Your task to perform on an android device: turn pop-ups off in chrome Image 0: 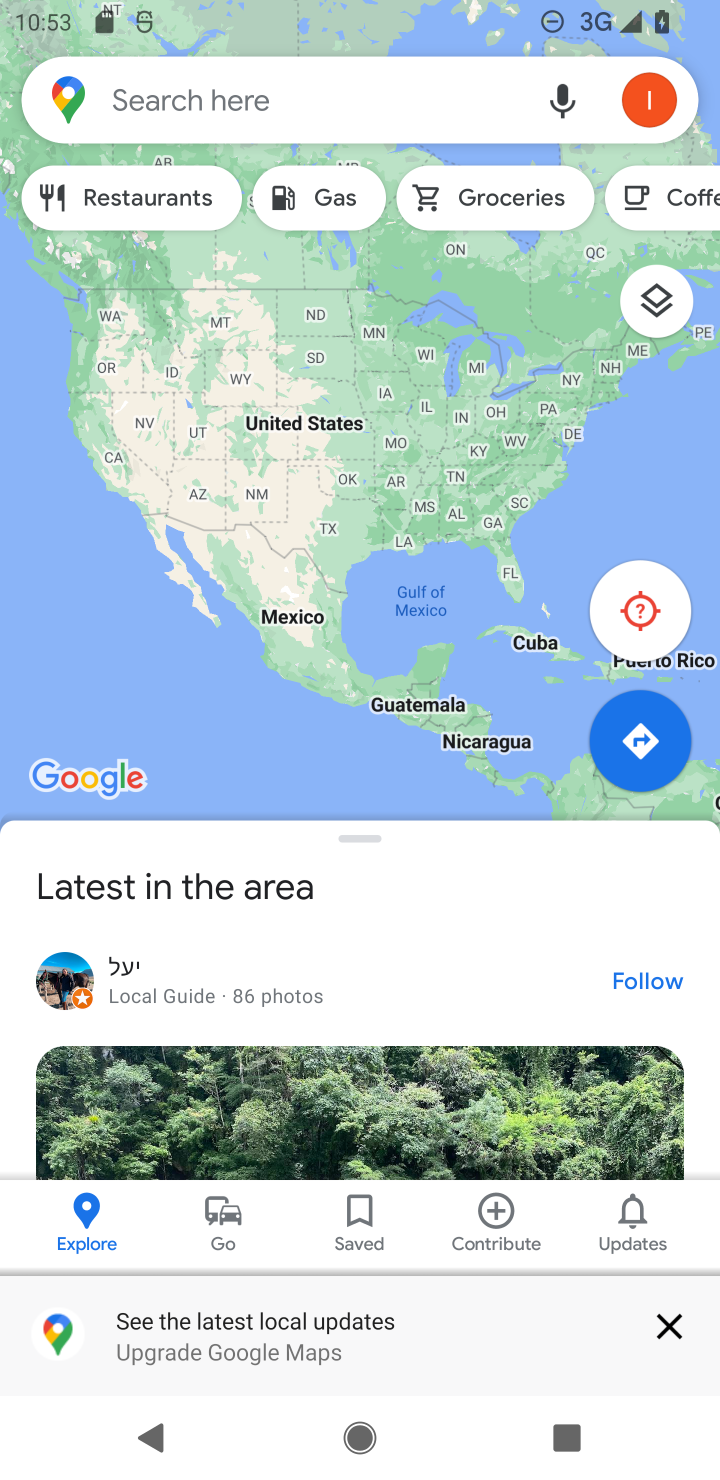
Step 0: press home button
Your task to perform on an android device: turn pop-ups off in chrome Image 1: 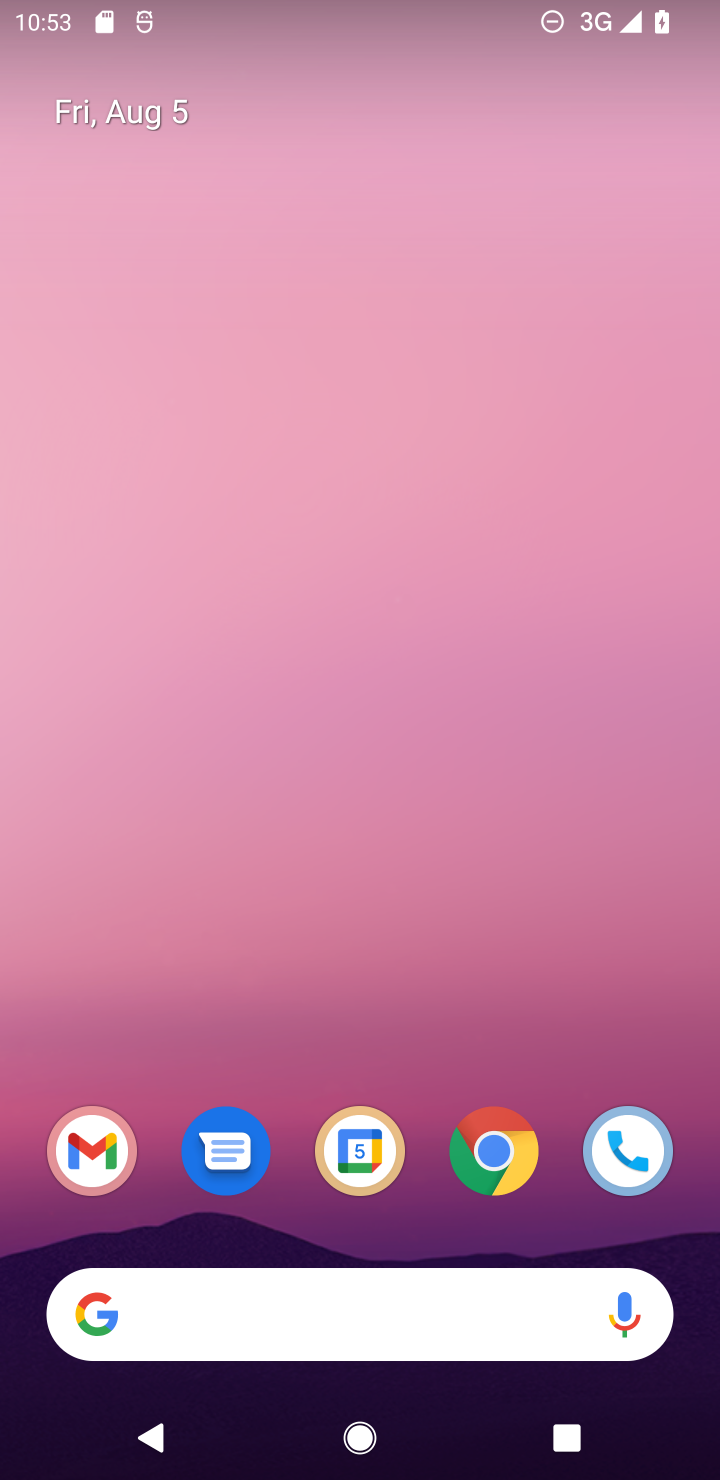
Step 1: click (482, 1178)
Your task to perform on an android device: turn pop-ups off in chrome Image 2: 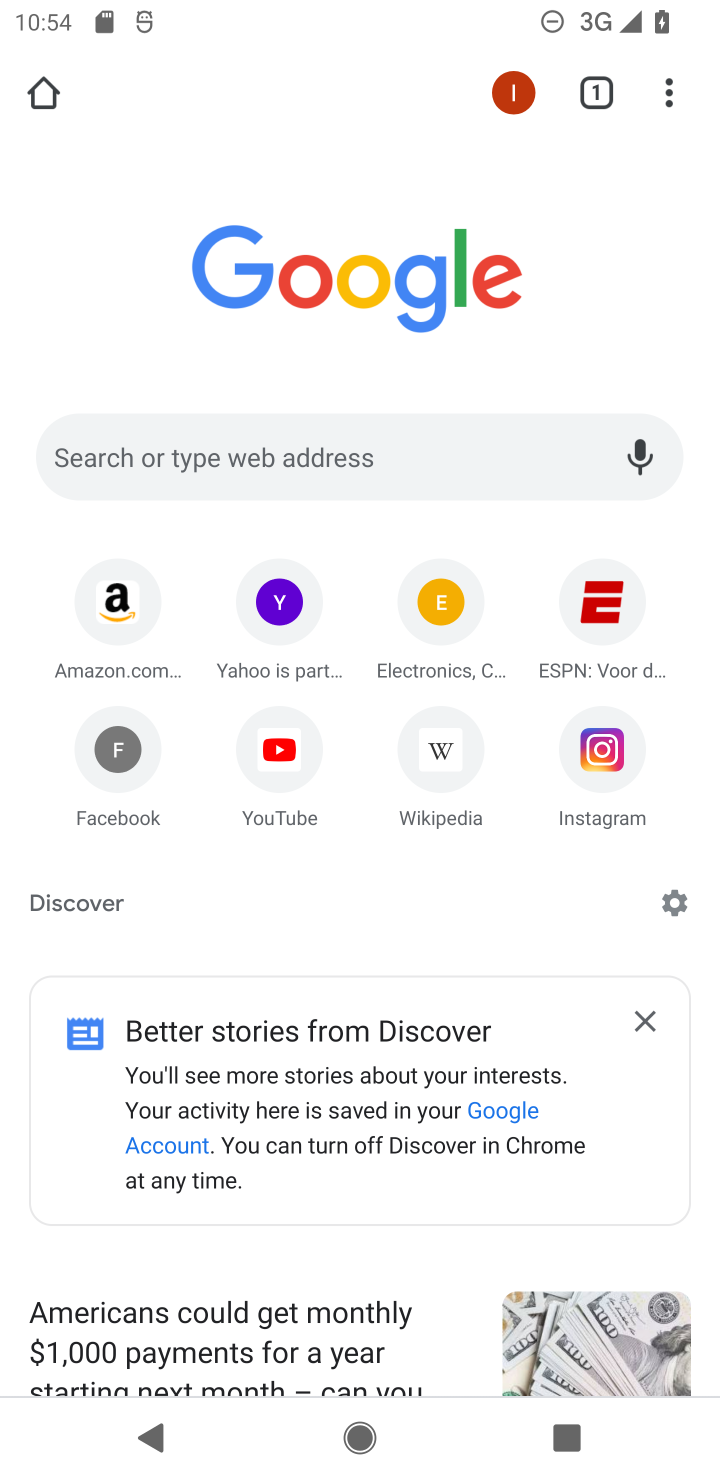
Step 2: click (670, 84)
Your task to perform on an android device: turn pop-ups off in chrome Image 3: 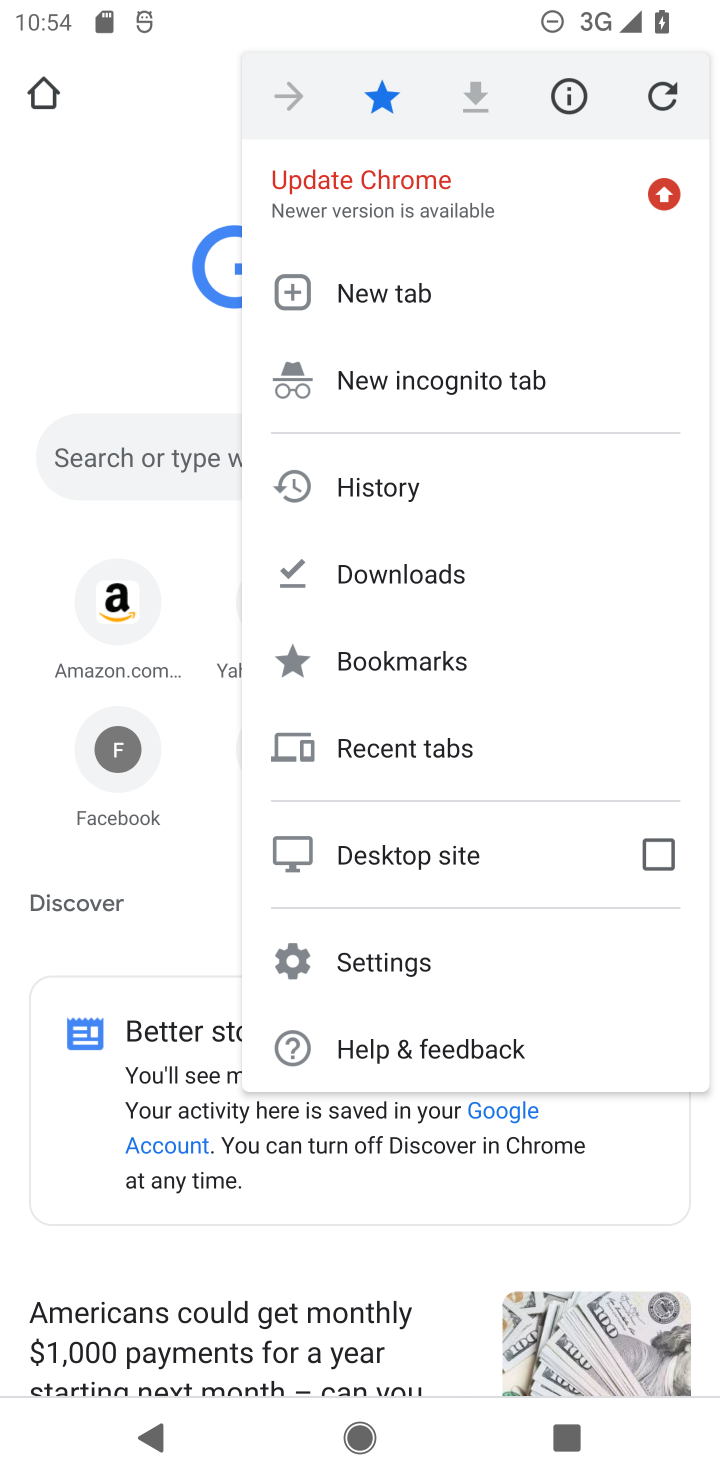
Step 3: click (411, 971)
Your task to perform on an android device: turn pop-ups off in chrome Image 4: 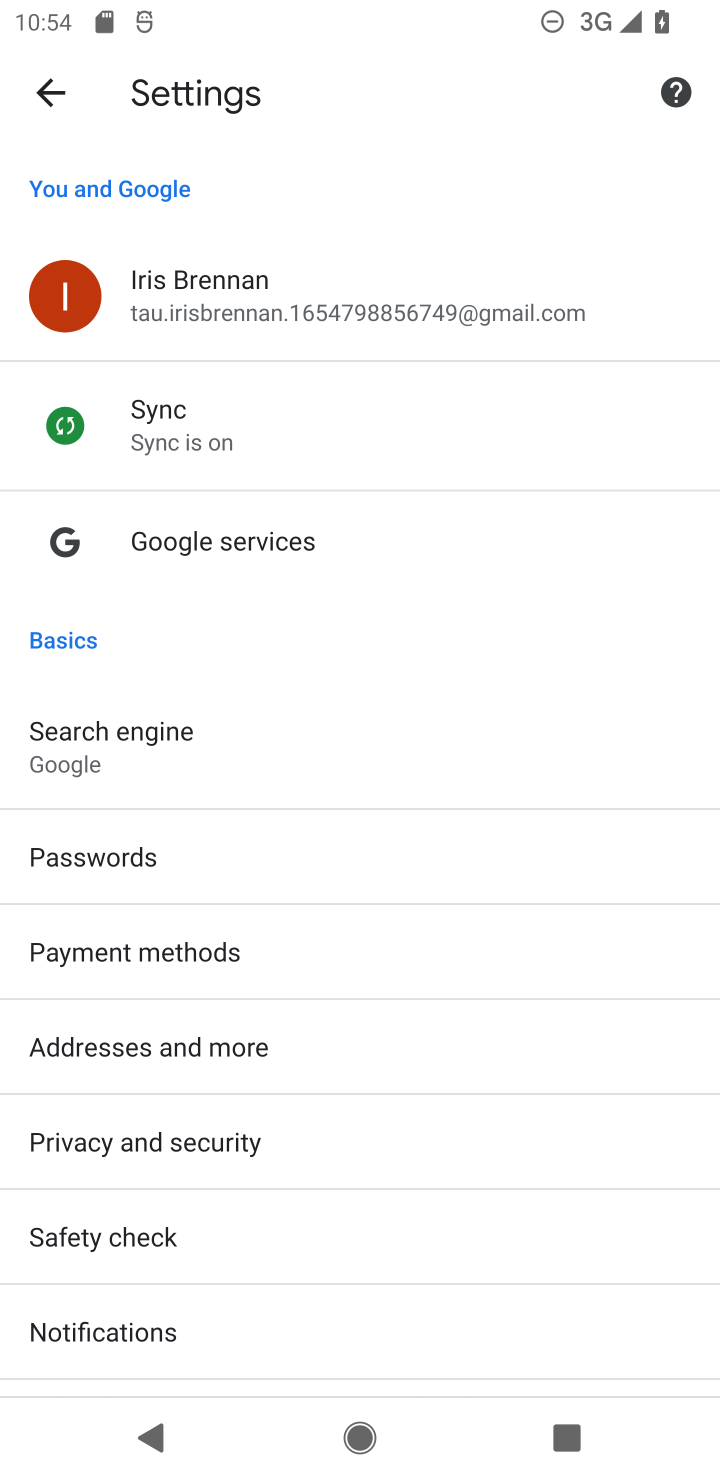
Step 4: drag from (206, 839) to (206, 738)
Your task to perform on an android device: turn pop-ups off in chrome Image 5: 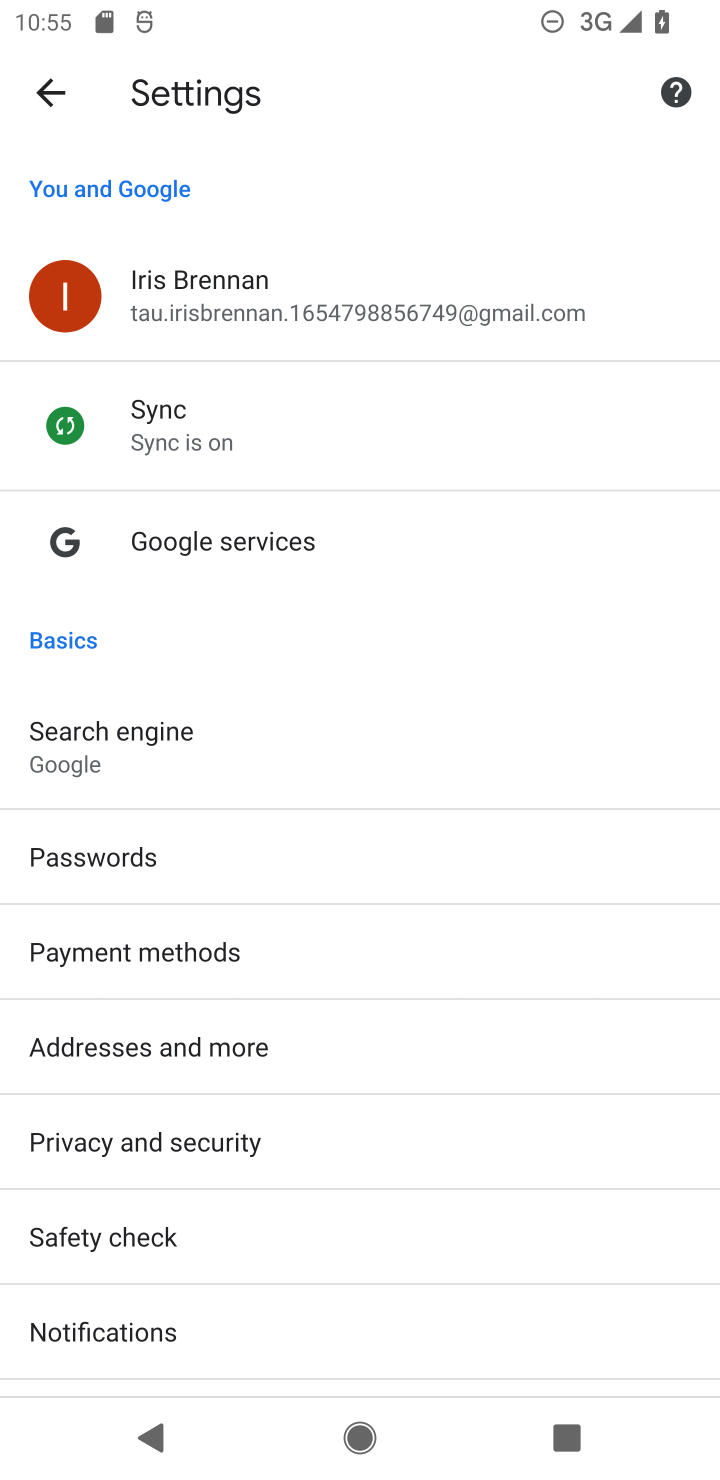
Step 5: drag from (164, 1176) to (277, 583)
Your task to perform on an android device: turn pop-ups off in chrome Image 6: 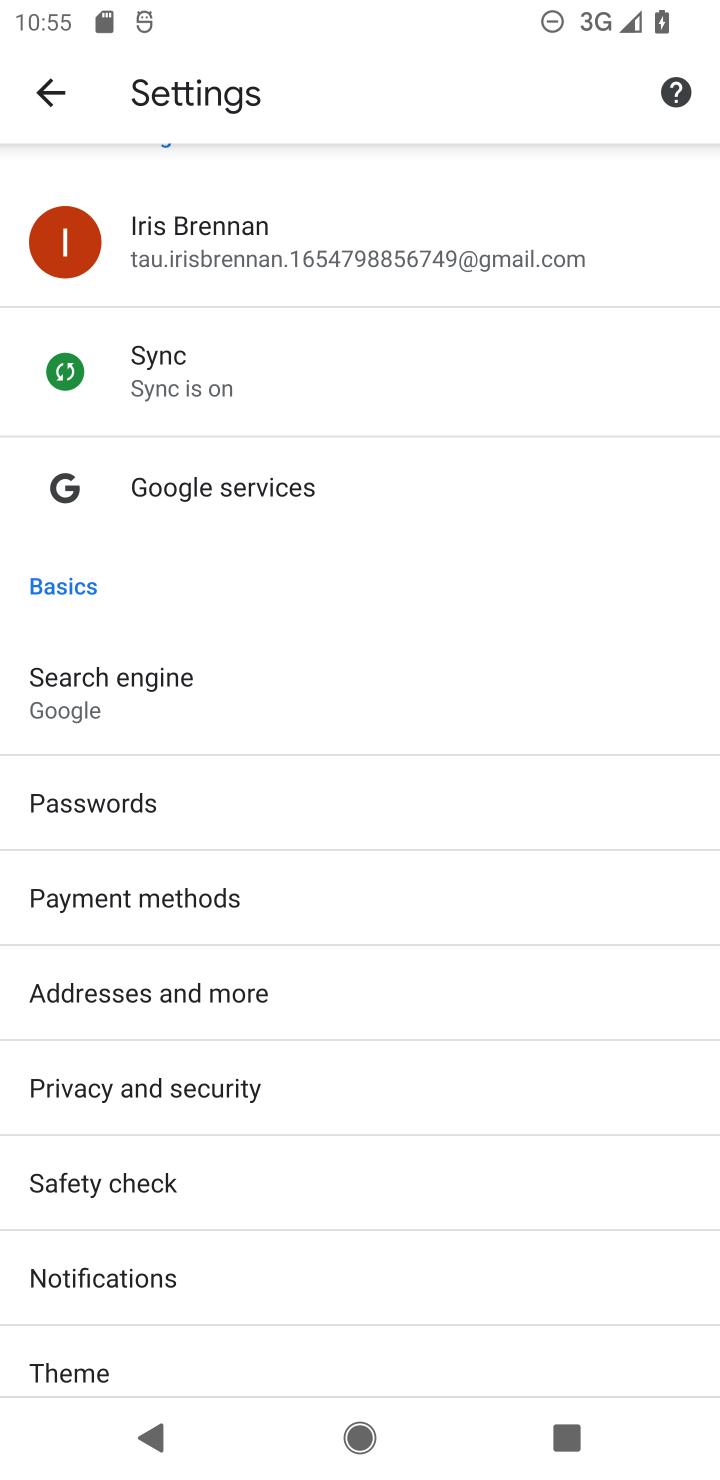
Step 6: drag from (213, 997) to (342, 595)
Your task to perform on an android device: turn pop-ups off in chrome Image 7: 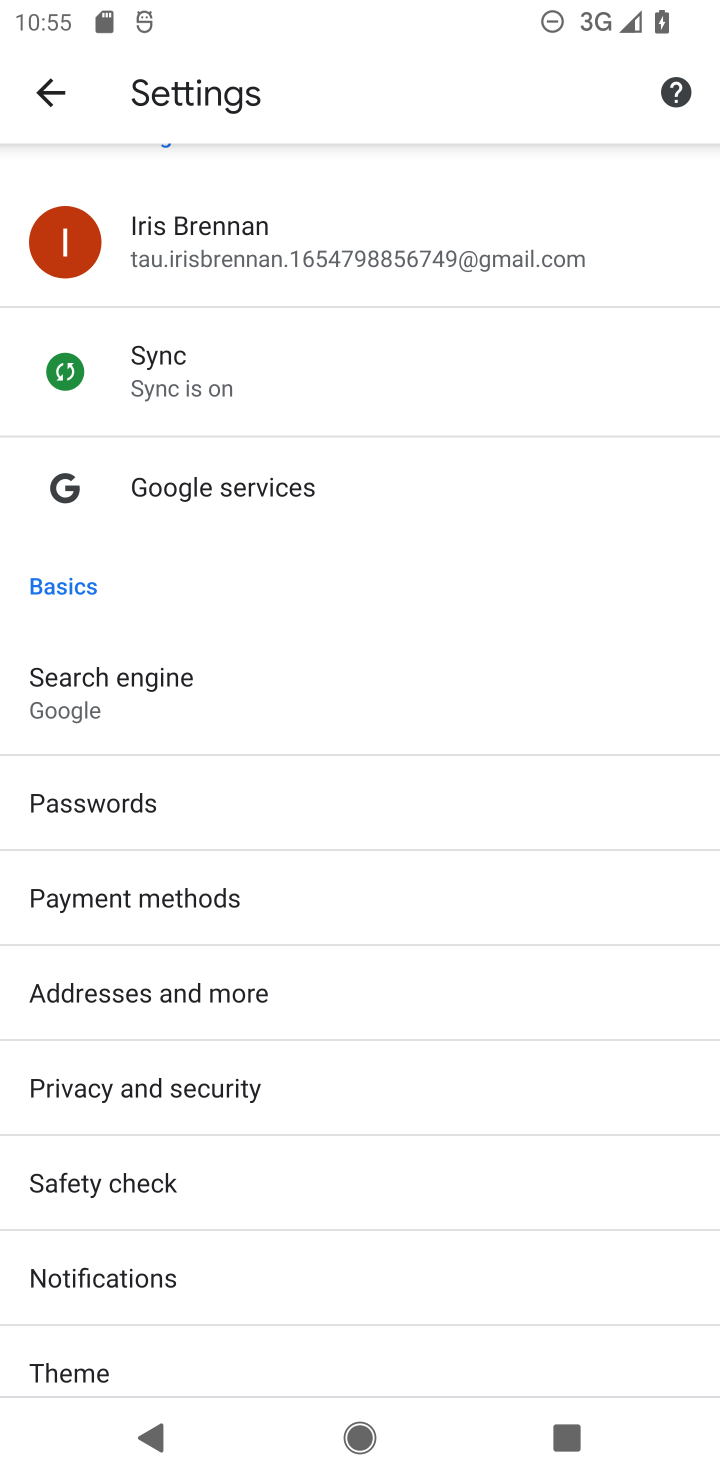
Step 7: drag from (297, 663) to (447, 329)
Your task to perform on an android device: turn pop-ups off in chrome Image 8: 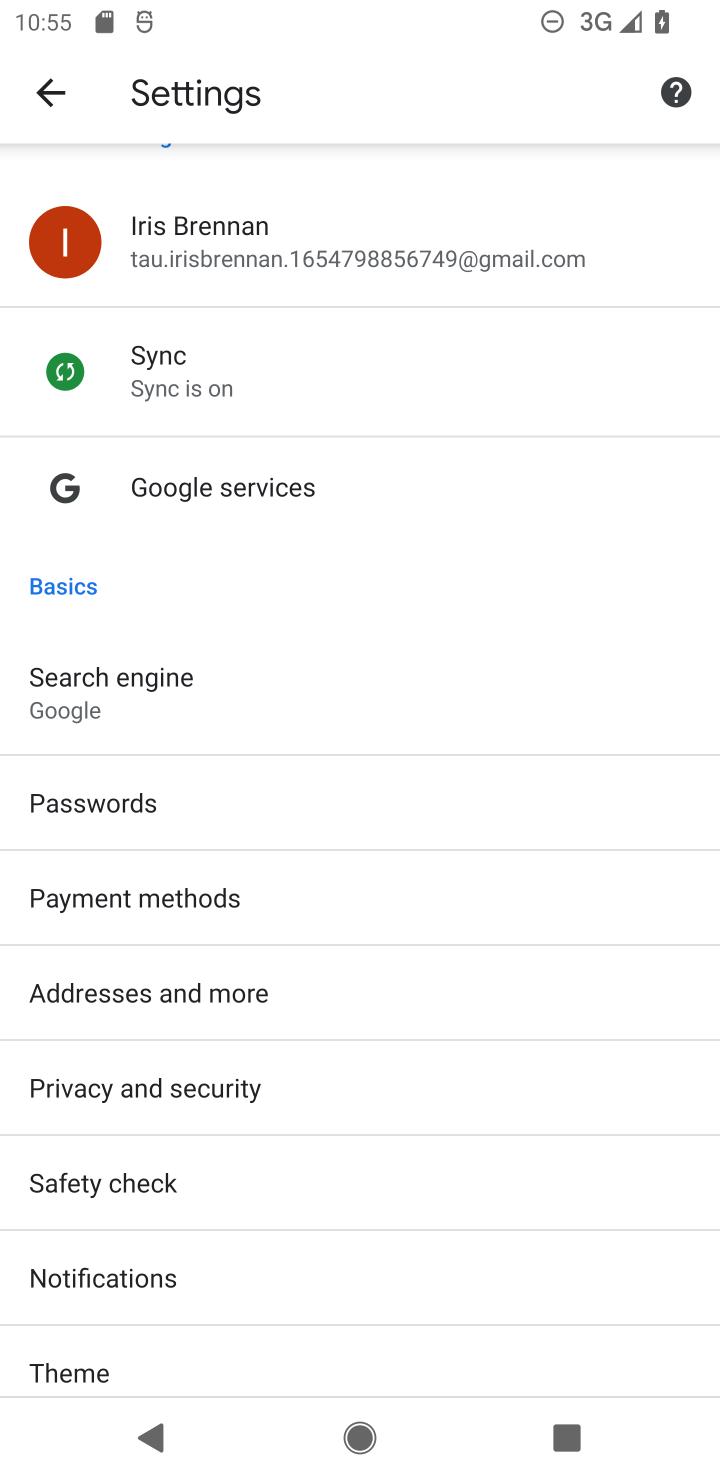
Step 8: drag from (201, 687) to (352, 214)
Your task to perform on an android device: turn pop-ups off in chrome Image 9: 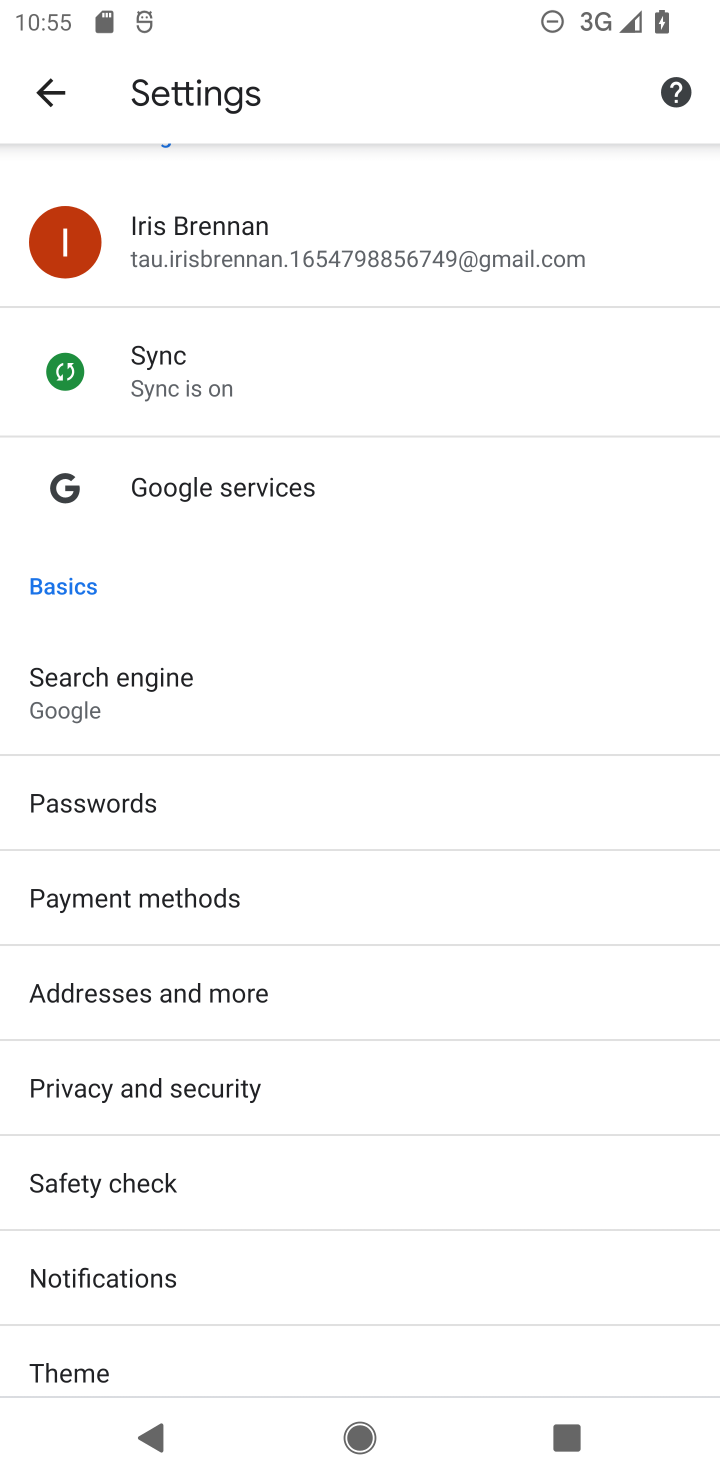
Step 9: drag from (207, 1058) to (397, 511)
Your task to perform on an android device: turn pop-ups off in chrome Image 10: 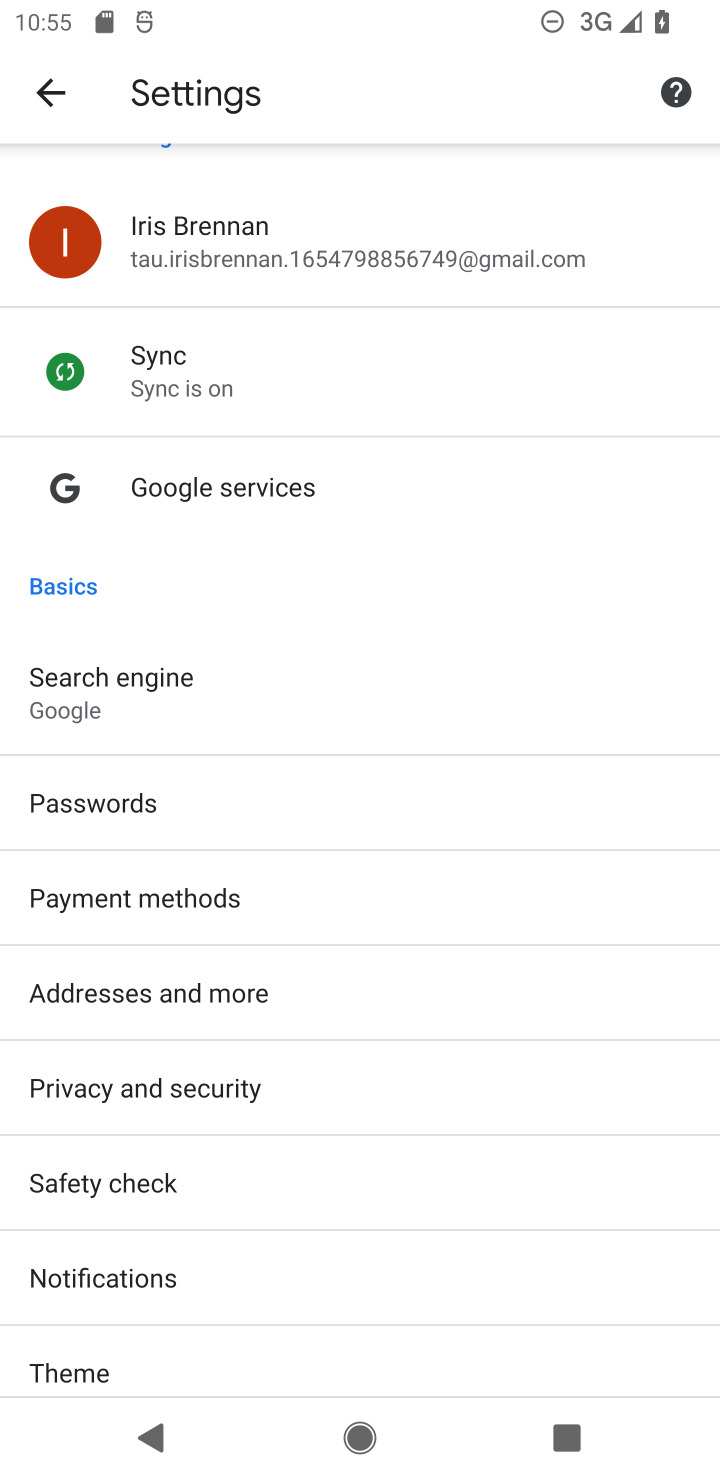
Step 10: drag from (286, 1138) to (387, 879)
Your task to perform on an android device: turn pop-ups off in chrome Image 11: 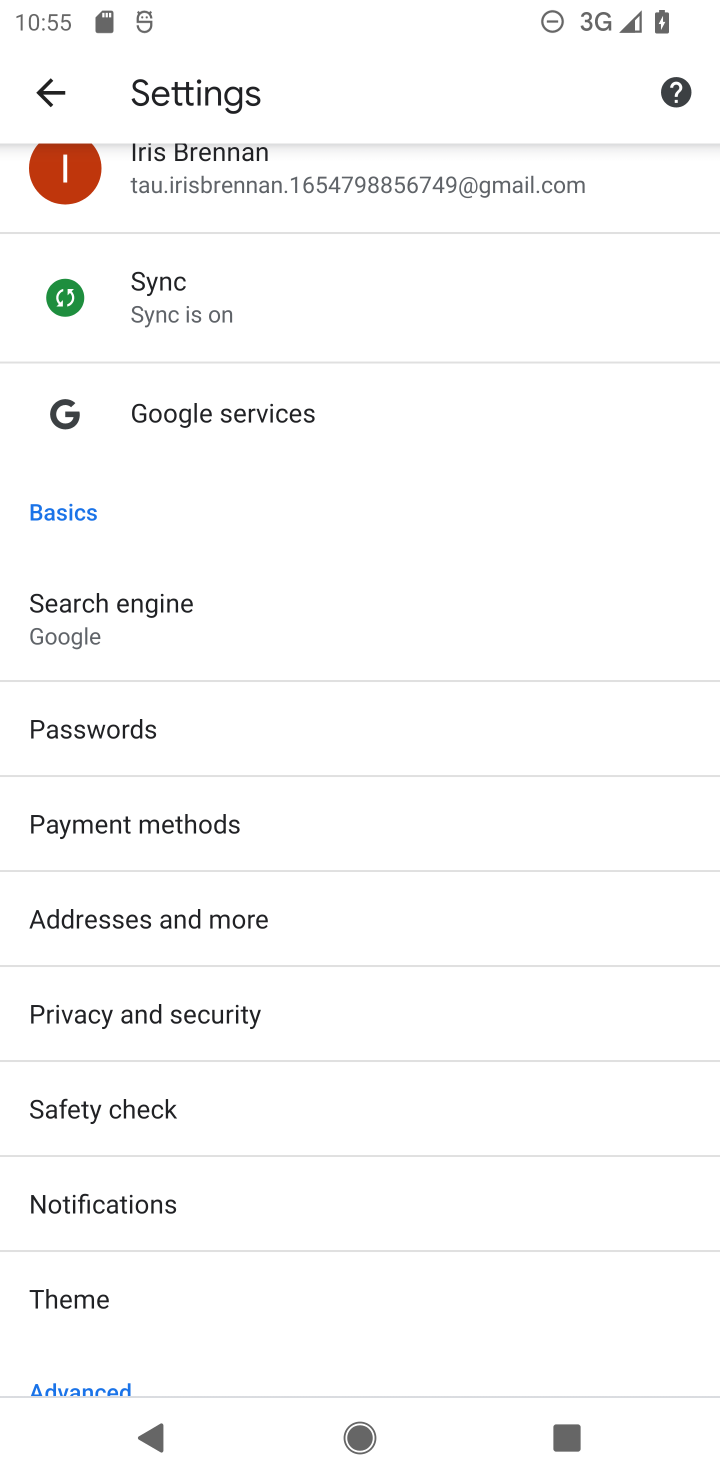
Step 11: drag from (179, 1010) to (266, 832)
Your task to perform on an android device: turn pop-ups off in chrome Image 12: 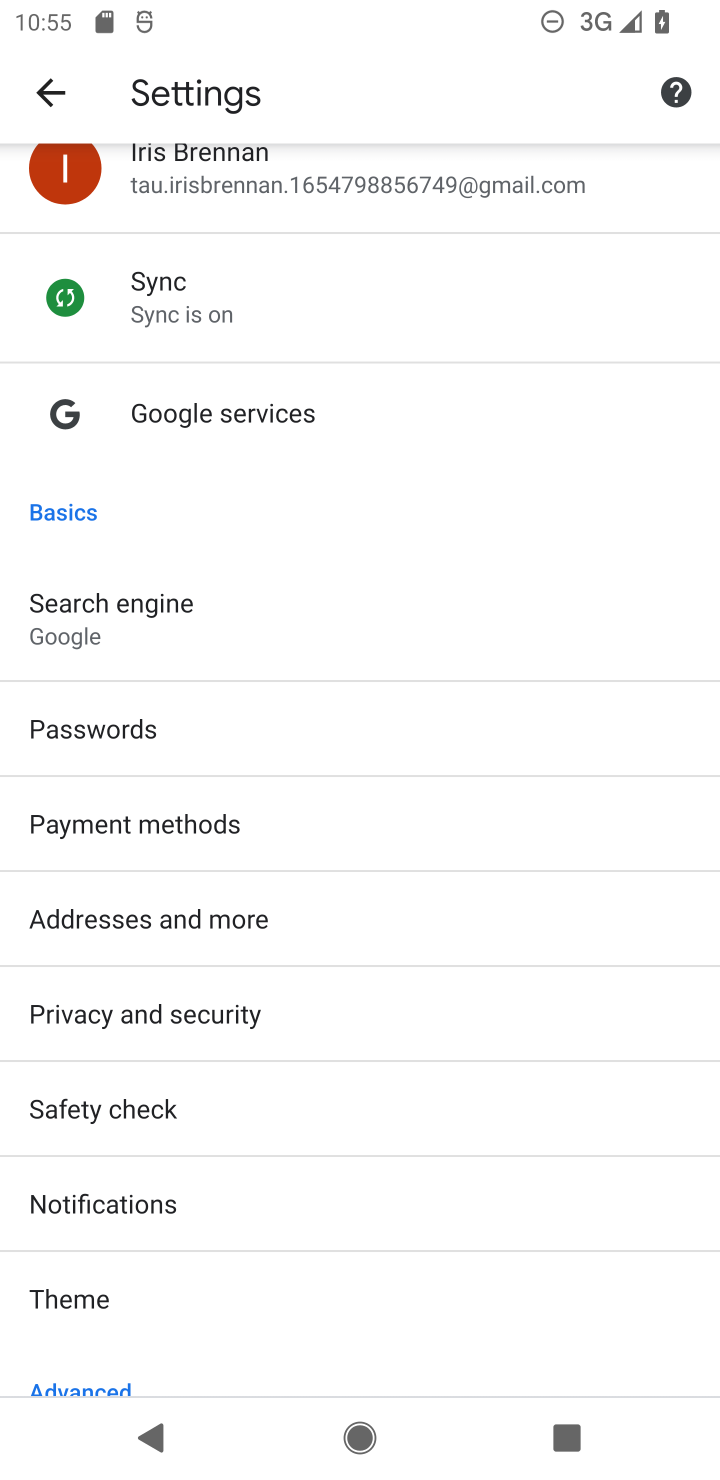
Step 12: drag from (221, 792) to (261, 627)
Your task to perform on an android device: turn pop-ups off in chrome Image 13: 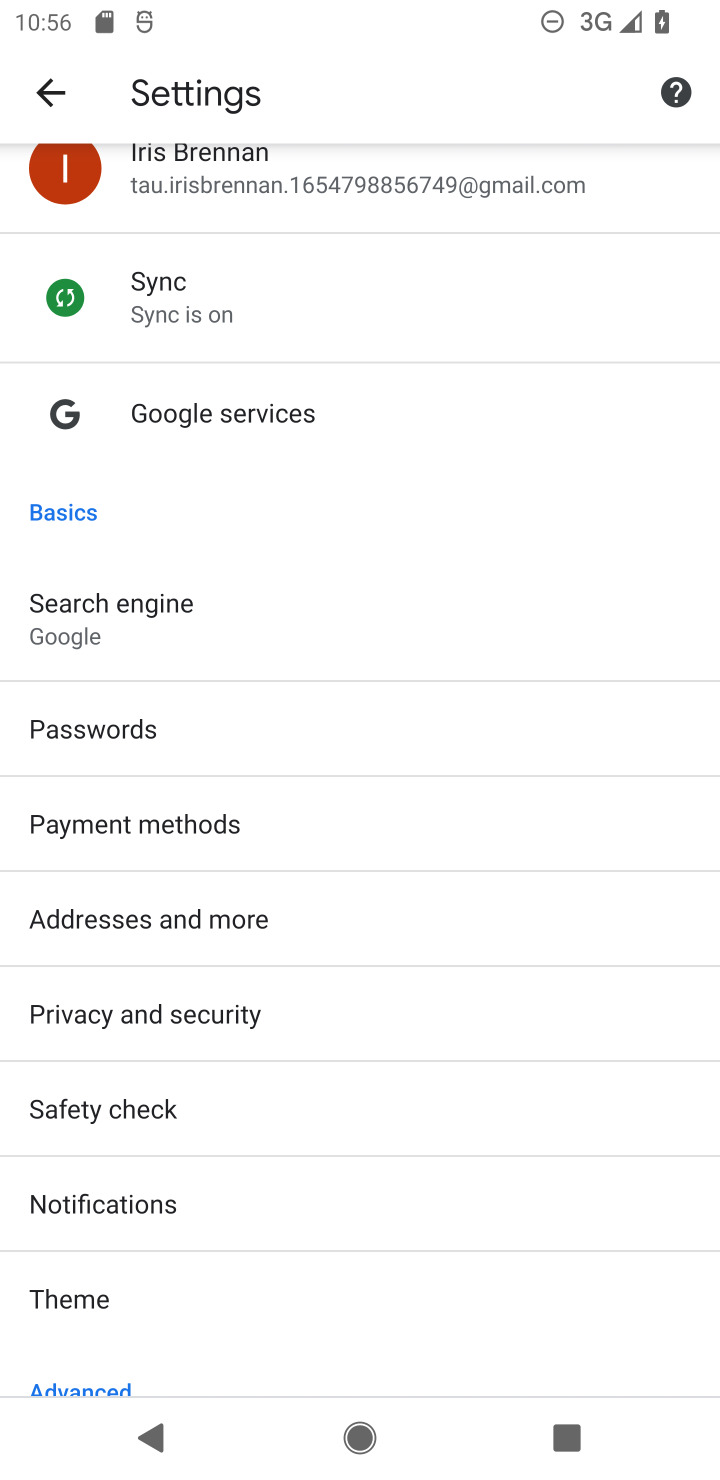
Step 13: drag from (292, 1008) to (337, 705)
Your task to perform on an android device: turn pop-ups off in chrome Image 14: 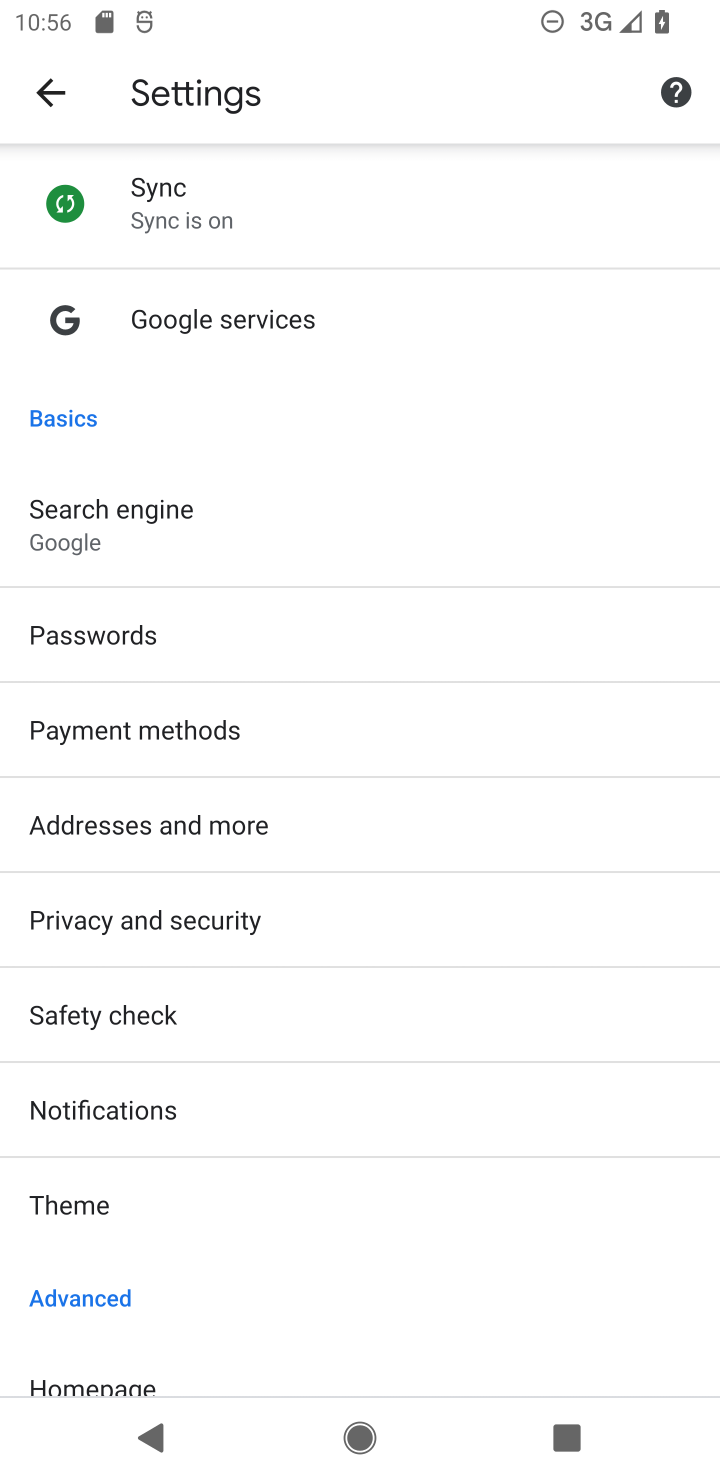
Step 14: drag from (273, 892) to (398, 433)
Your task to perform on an android device: turn pop-ups off in chrome Image 15: 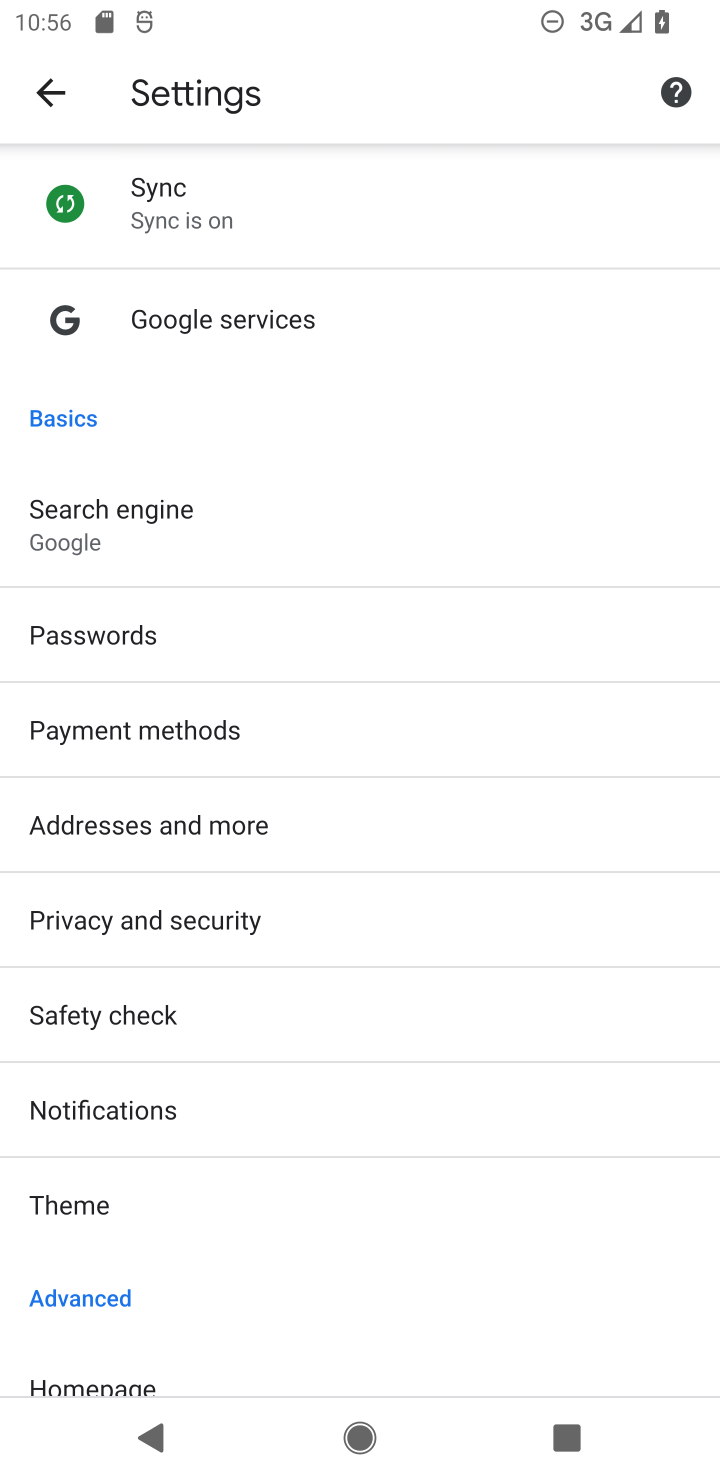
Step 15: drag from (304, 906) to (357, 630)
Your task to perform on an android device: turn pop-ups off in chrome Image 16: 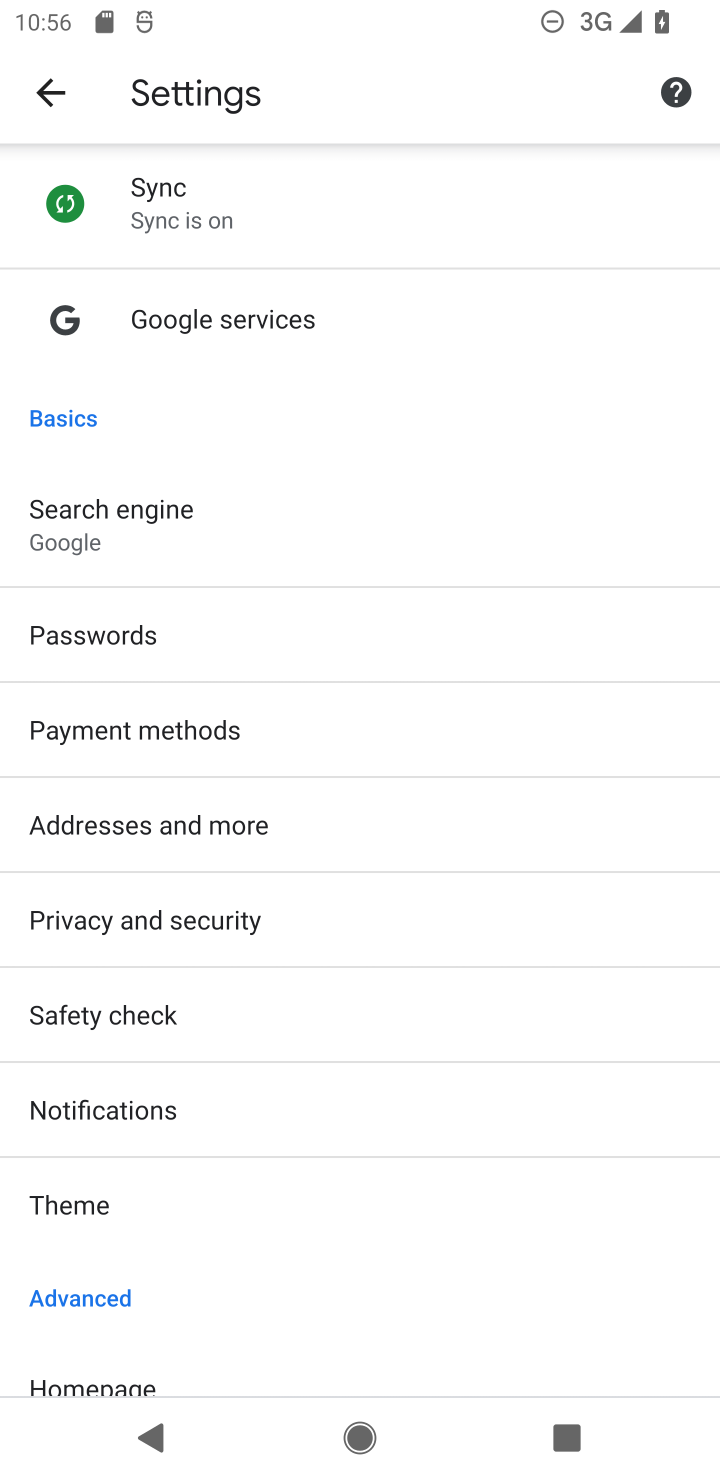
Step 16: drag from (248, 1044) to (396, 218)
Your task to perform on an android device: turn pop-ups off in chrome Image 17: 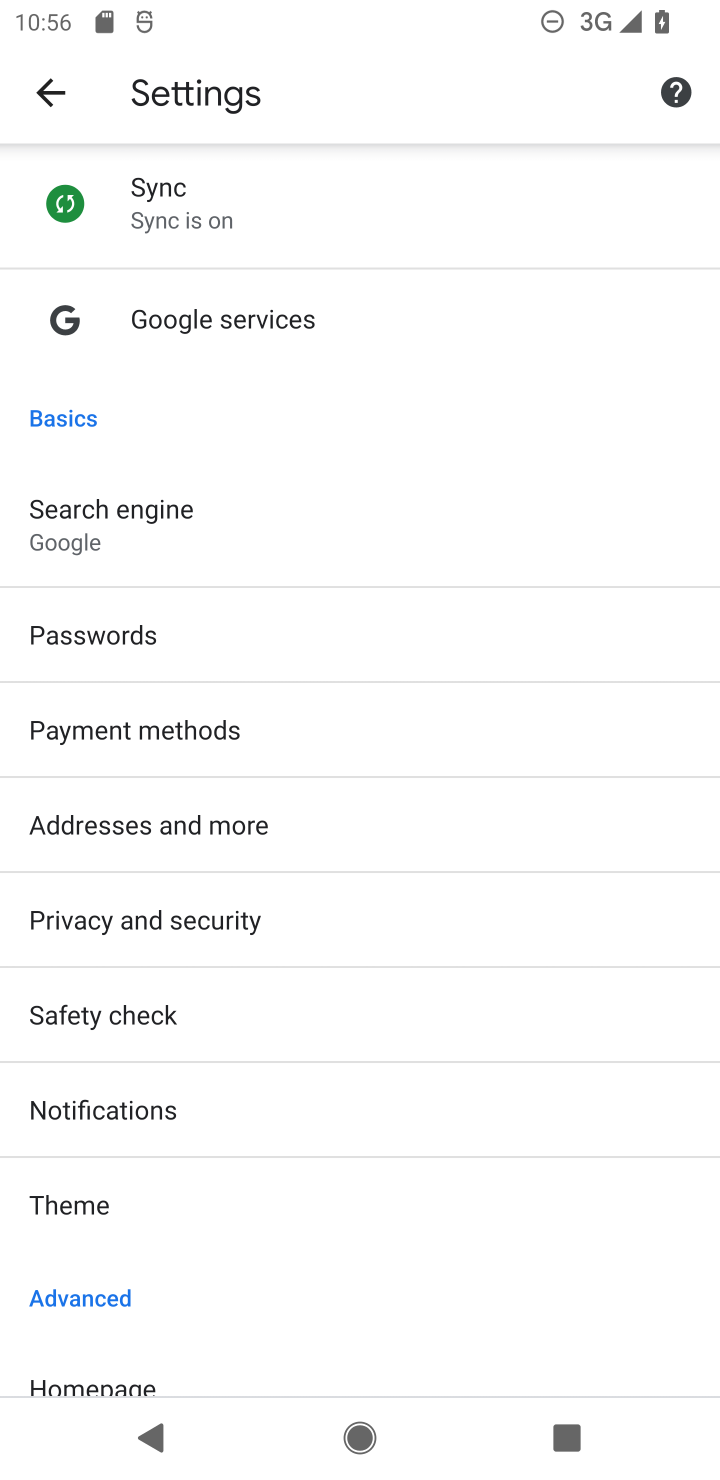
Step 17: drag from (188, 1269) to (250, 336)
Your task to perform on an android device: turn pop-ups off in chrome Image 18: 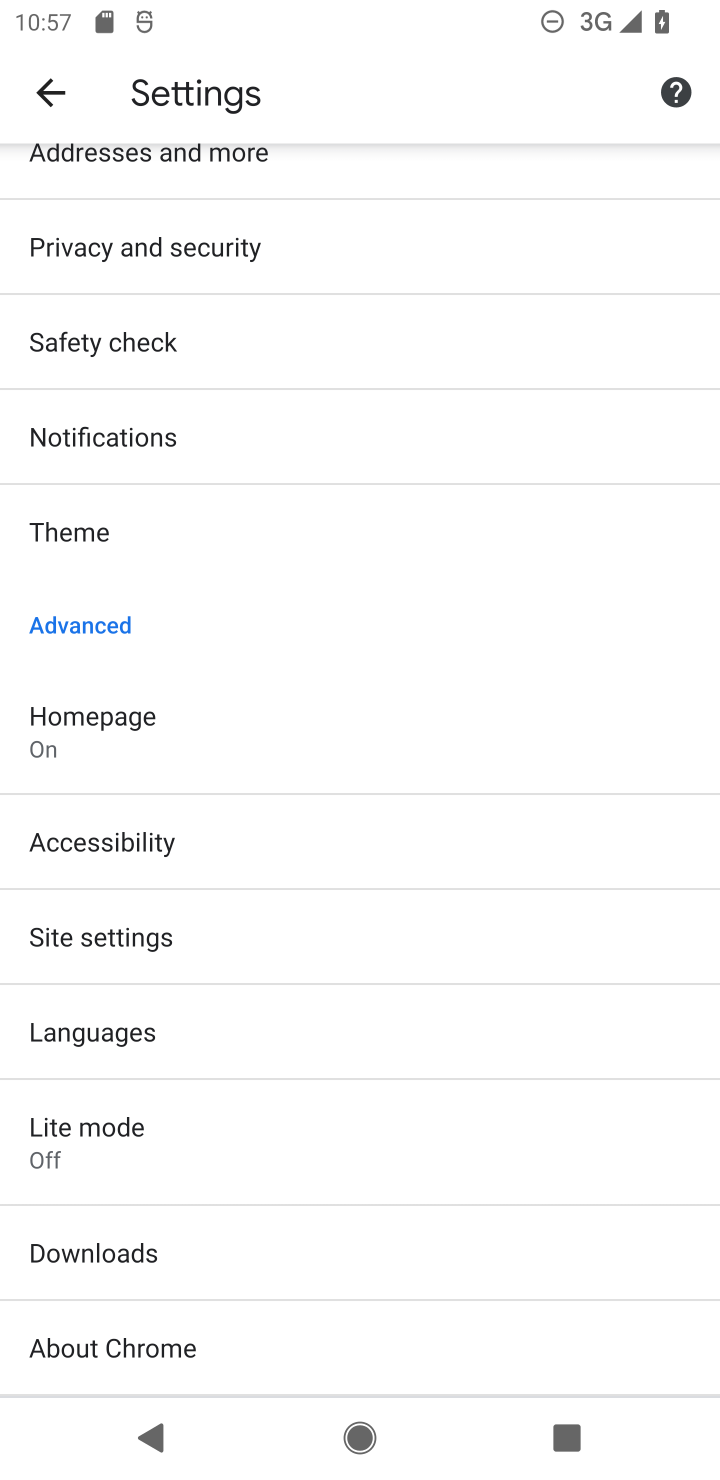
Step 18: click (125, 939)
Your task to perform on an android device: turn pop-ups off in chrome Image 19: 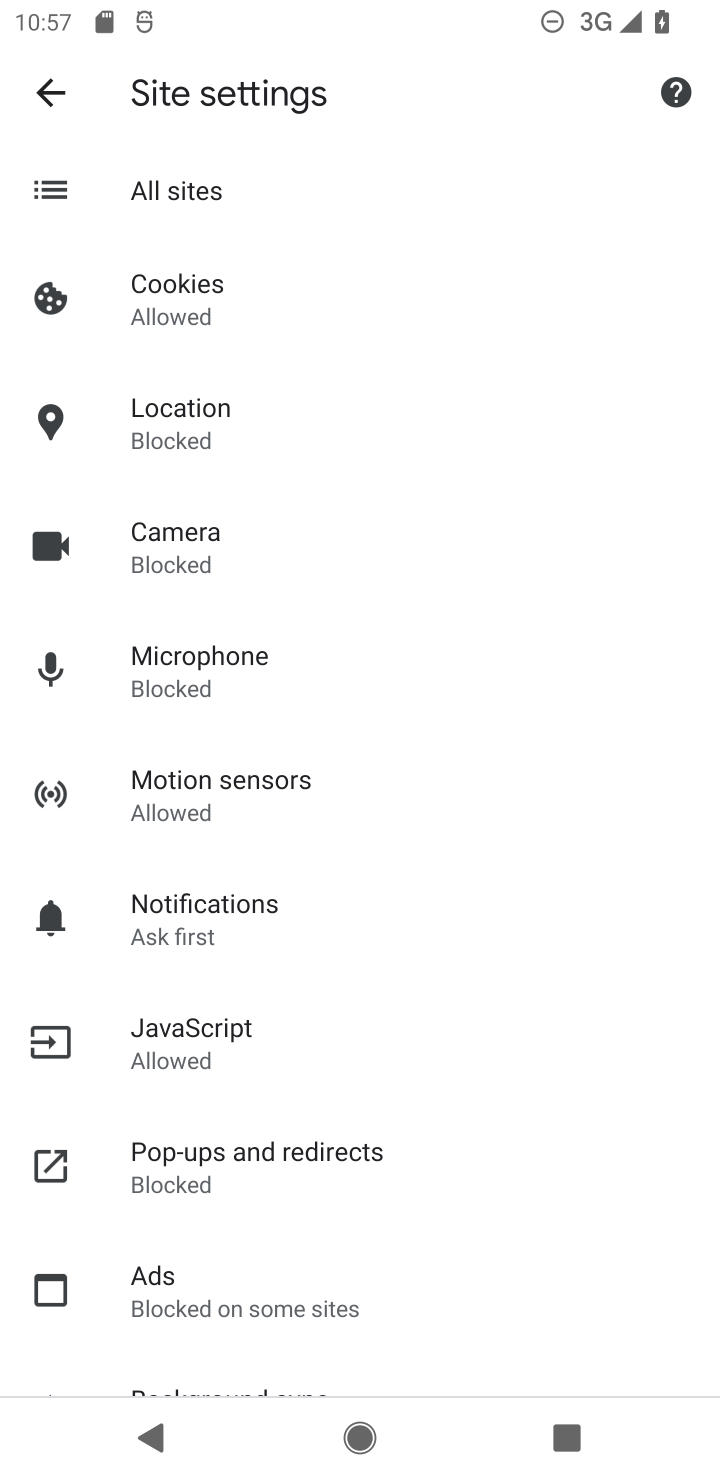
Step 19: click (293, 1163)
Your task to perform on an android device: turn pop-ups off in chrome Image 20: 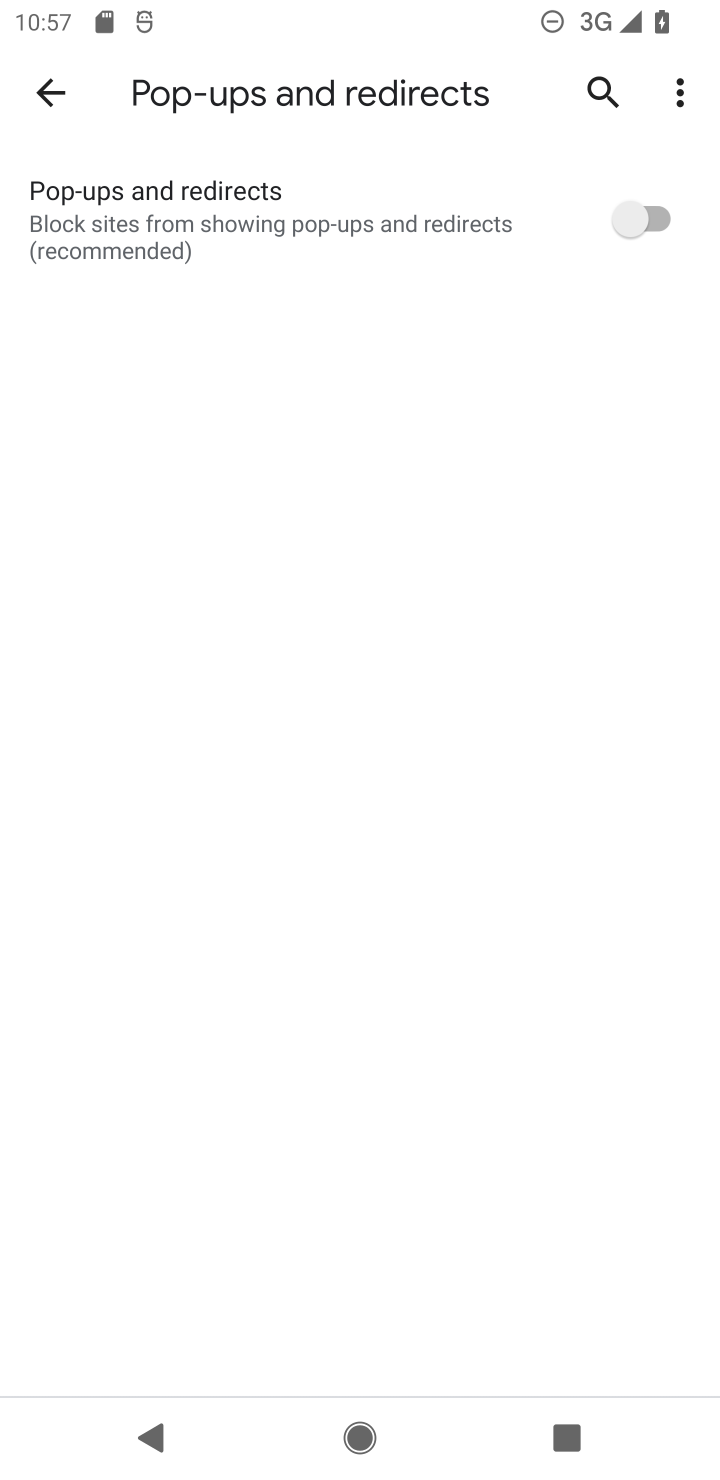
Step 20: task complete